Your task to perform on an android device: stop showing notifications on the lock screen Image 0: 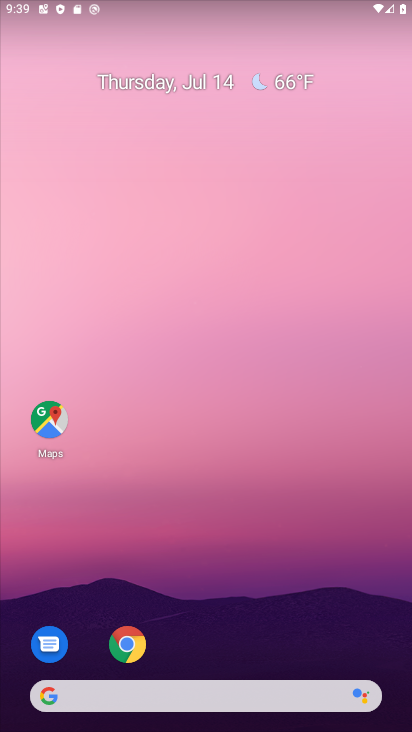
Step 0: drag from (227, 490) to (167, 188)
Your task to perform on an android device: stop showing notifications on the lock screen Image 1: 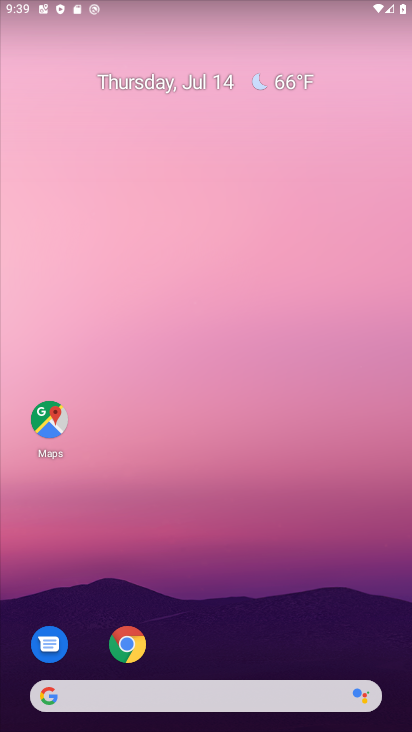
Step 1: drag from (266, 659) to (120, 159)
Your task to perform on an android device: stop showing notifications on the lock screen Image 2: 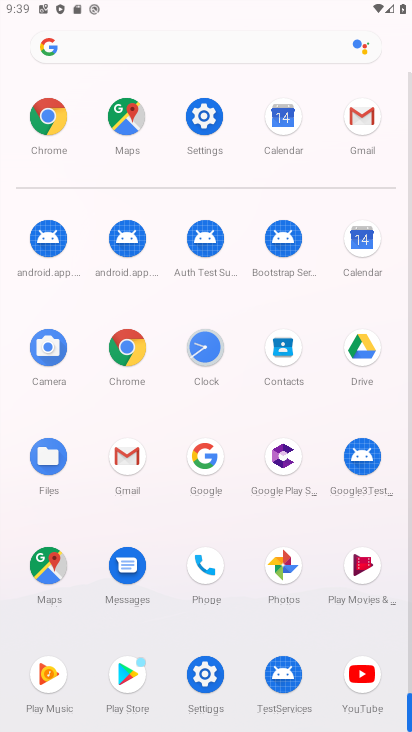
Step 2: click (203, 673)
Your task to perform on an android device: stop showing notifications on the lock screen Image 3: 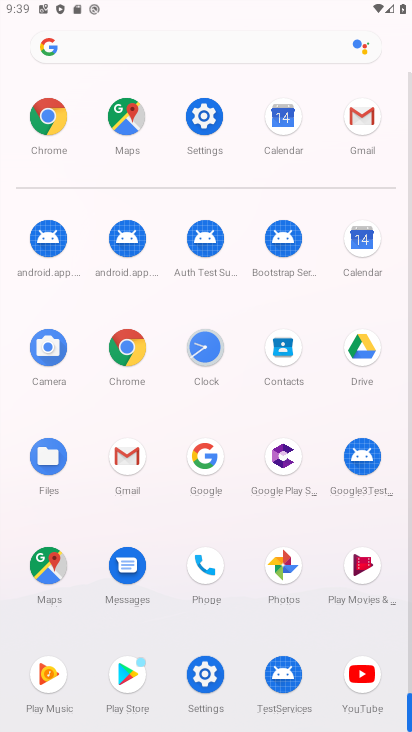
Step 3: click (208, 671)
Your task to perform on an android device: stop showing notifications on the lock screen Image 4: 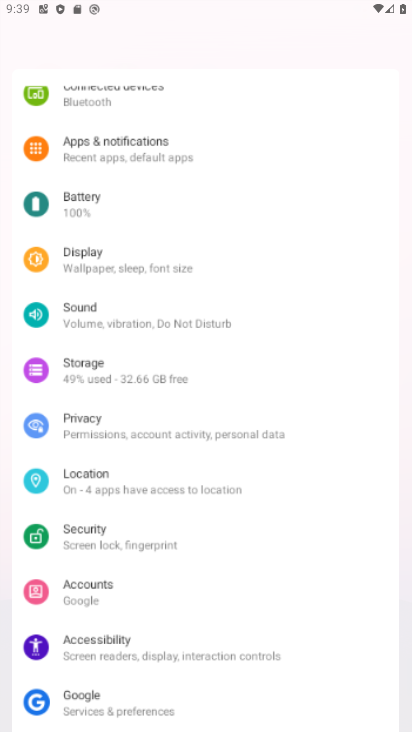
Step 4: click (214, 666)
Your task to perform on an android device: stop showing notifications on the lock screen Image 5: 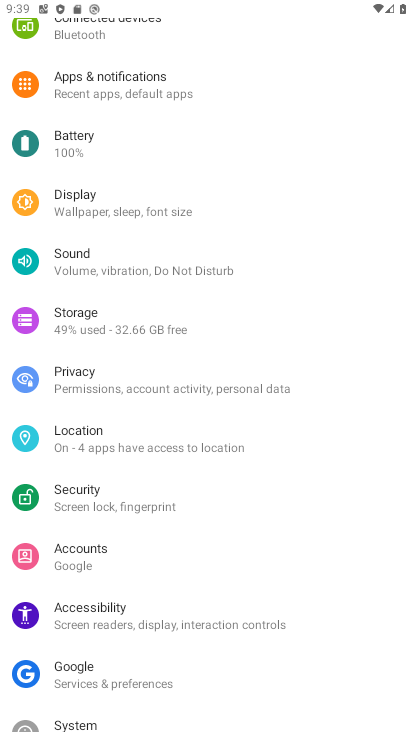
Step 5: click (215, 666)
Your task to perform on an android device: stop showing notifications on the lock screen Image 6: 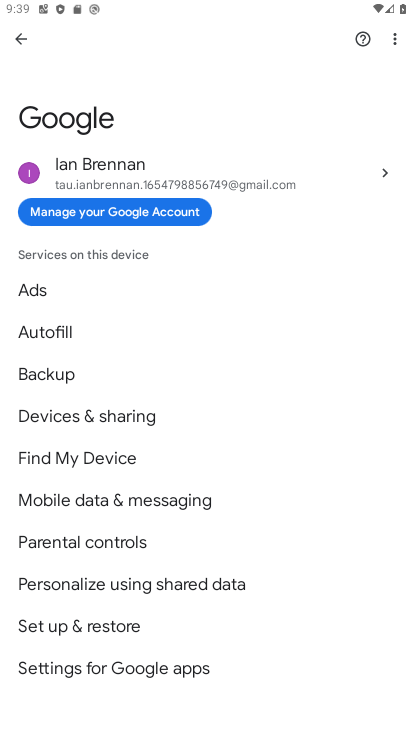
Step 6: press back button
Your task to perform on an android device: stop showing notifications on the lock screen Image 7: 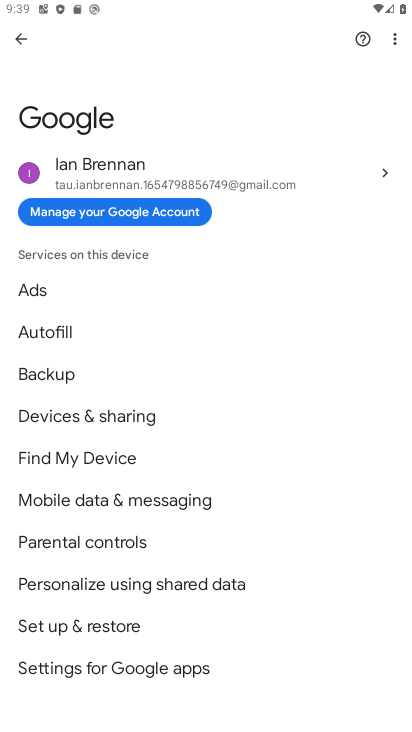
Step 7: press back button
Your task to perform on an android device: stop showing notifications on the lock screen Image 8: 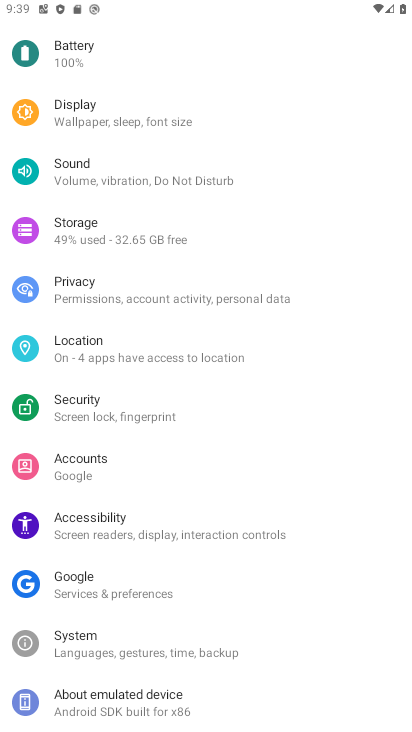
Step 8: press back button
Your task to perform on an android device: stop showing notifications on the lock screen Image 9: 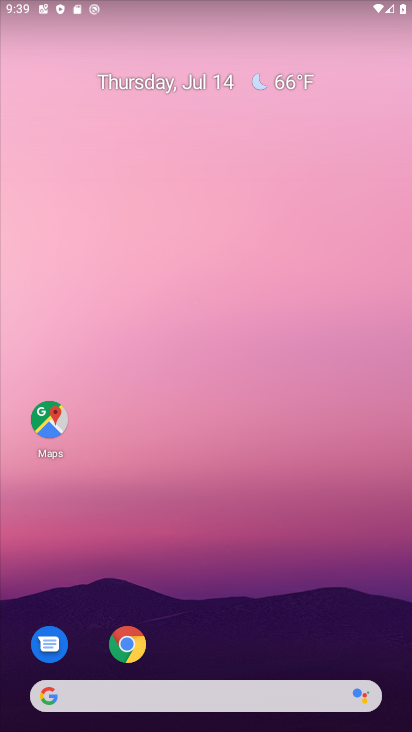
Step 9: drag from (298, 702) to (106, 93)
Your task to perform on an android device: stop showing notifications on the lock screen Image 10: 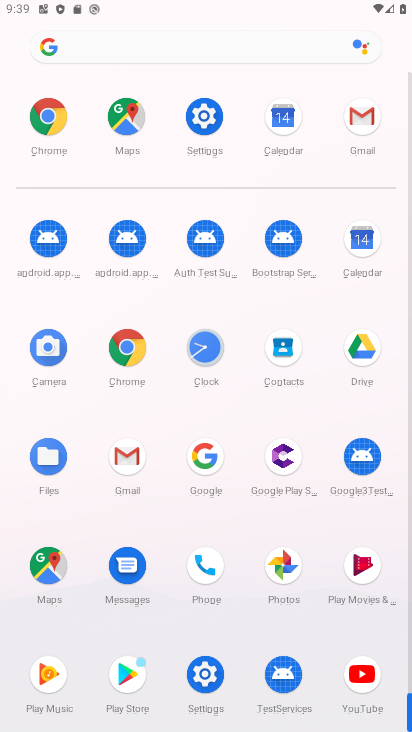
Step 10: click (204, 684)
Your task to perform on an android device: stop showing notifications on the lock screen Image 11: 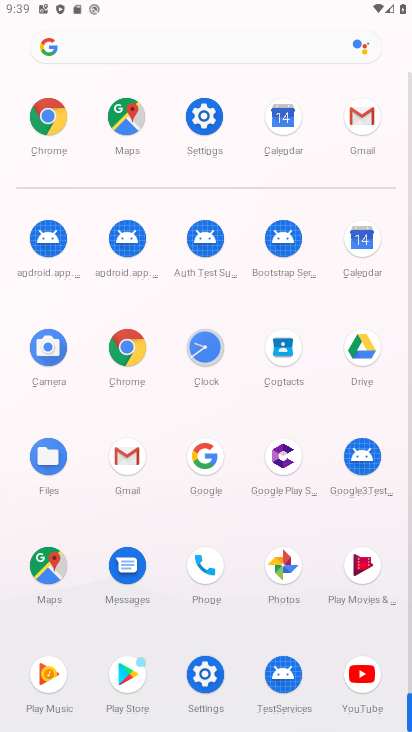
Step 11: click (206, 679)
Your task to perform on an android device: stop showing notifications on the lock screen Image 12: 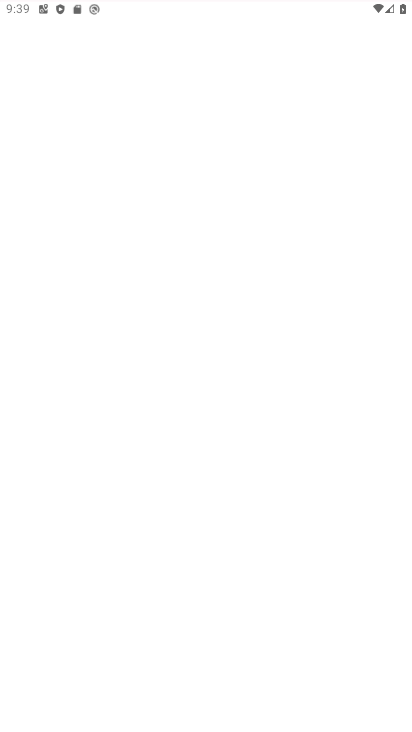
Step 12: click (207, 678)
Your task to perform on an android device: stop showing notifications on the lock screen Image 13: 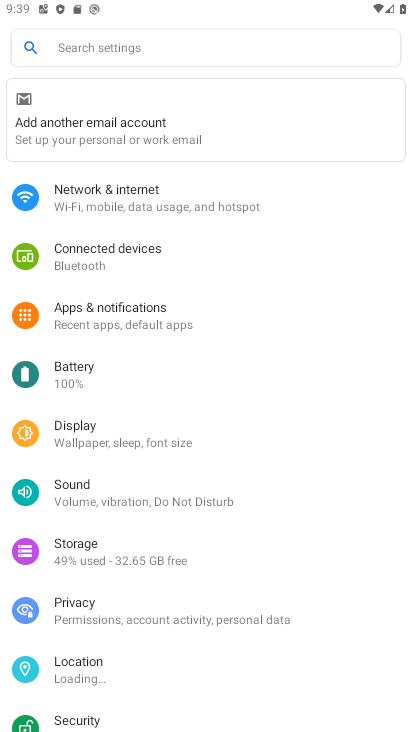
Step 13: click (136, 319)
Your task to perform on an android device: stop showing notifications on the lock screen Image 14: 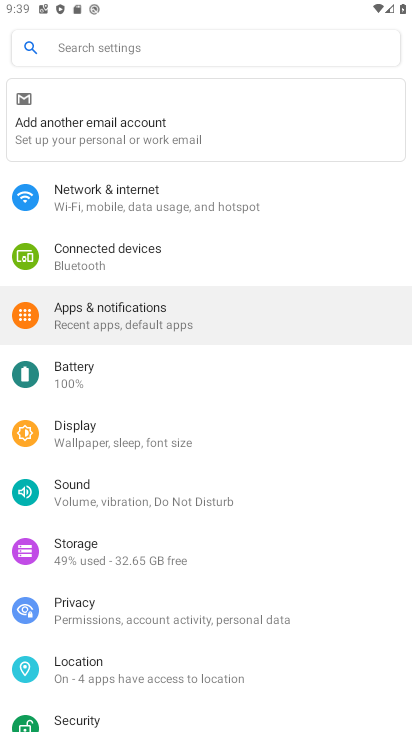
Step 14: click (133, 323)
Your task to perform on an android device: stop showing notifications on the lock screen Image 15: 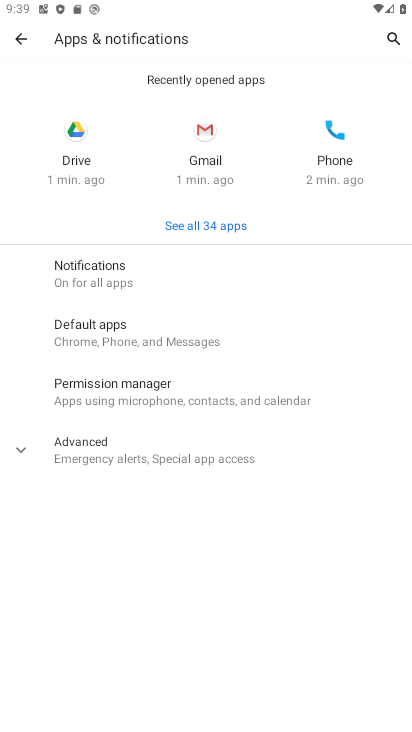
Step 15: click (84, 274)
Your task to perform on an android device: stop showing notifications on the lock screen Image 16: 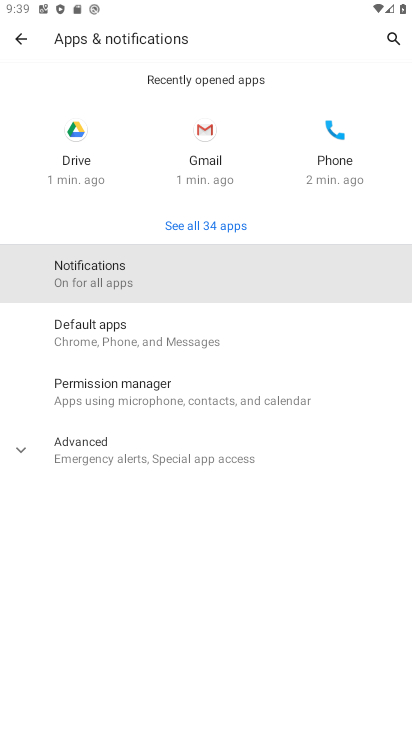
Step 16: click (84, 275)
Your task to perform on an android device: stop showing notifications on the lock screen Image 17: 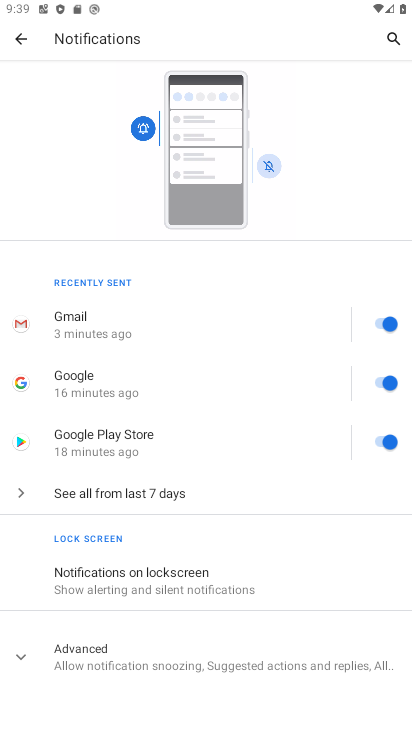
Step 17: drag from (116, 582) to (89, 307)
Your task to perform on an android device: stop showing notifications on the lock screen Image 18: 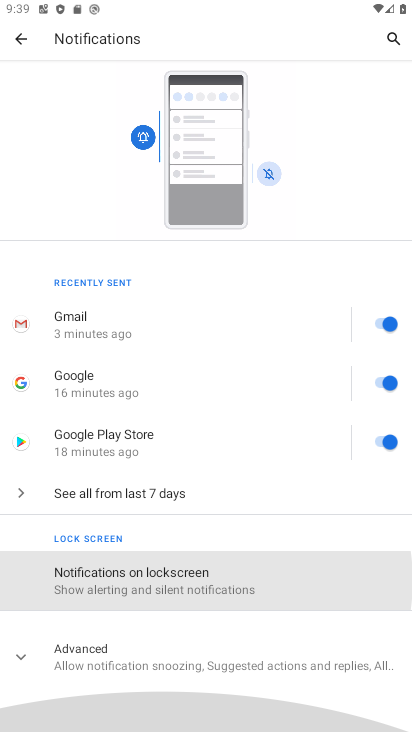
Step 18: drag from (168, 456) to (139, 247)
Your task to perform on an android device: stop showing notifications on the lock screen Image 19: 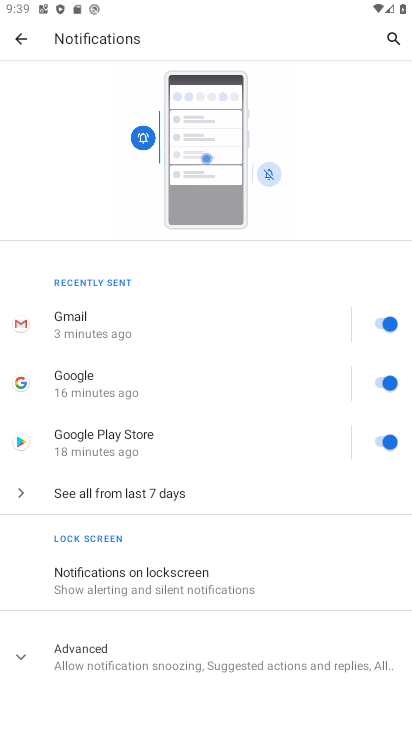
Step 19: click (110, 661)
Your task to perform on an android device: stop showing notifications on the lock screen Image 20: 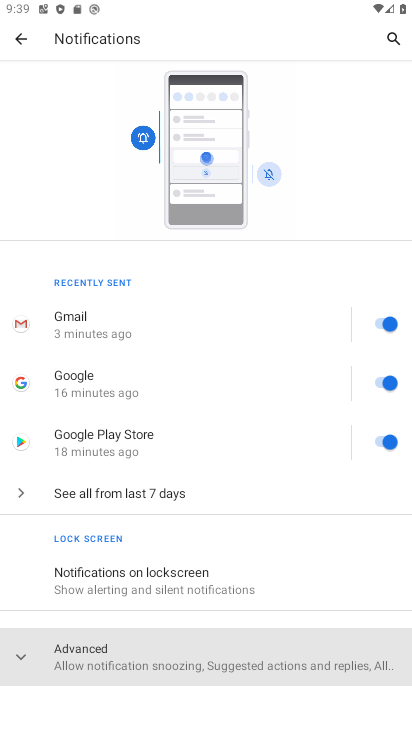
Step 20: click (110, 661)
Your task to perform on an android device: stop showing notifications on the lock screen Image 21: 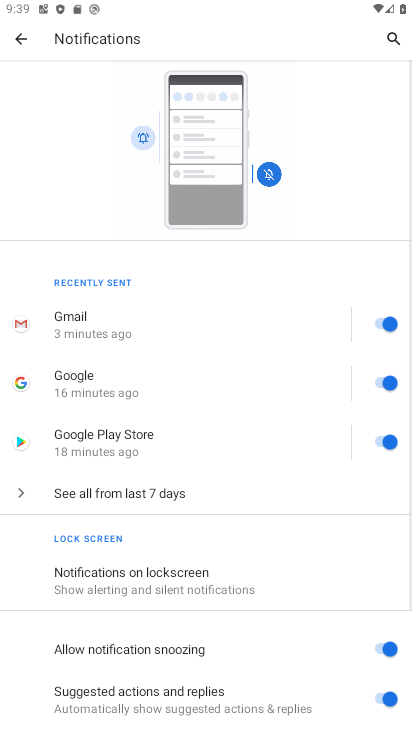
Step 21: drag from (209, 567) to (168, 256)
Your task to perform on an android device: stop showing notifications on the lock screen Image 22: 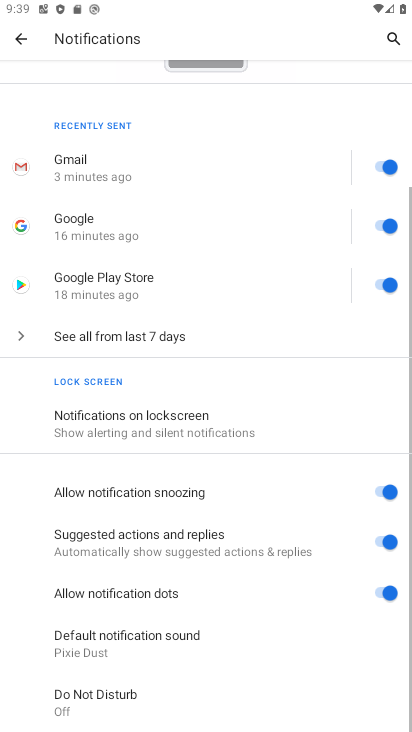
Step 22: drag from (257, 670) to (184, 278)
Your task to perform on an android device: stop showing notifications on the lock screen Image 23: 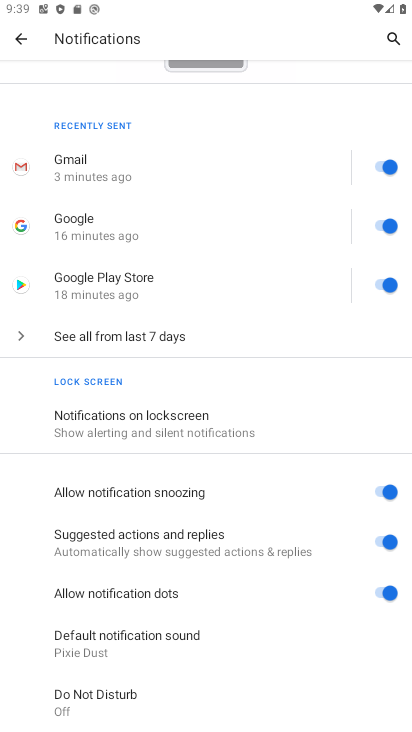
Step 23: click (393, 585)
Your task to perform on an android device: stop showing notifications on the lock screen Image 24: 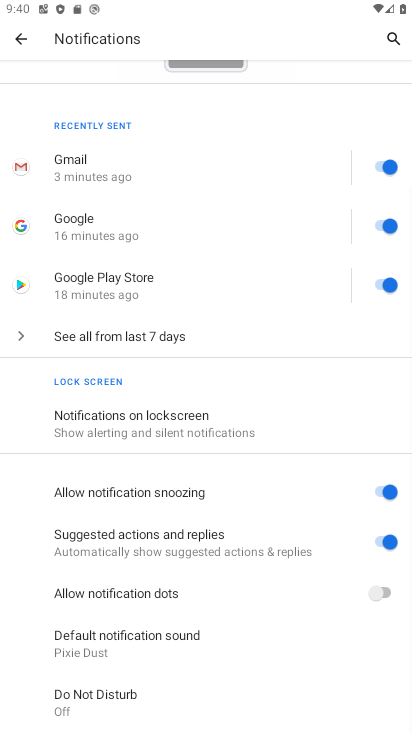
Step 24: task complete